Your task to perform on an android device: see tabs open on other devices in the chrome app Image 0: 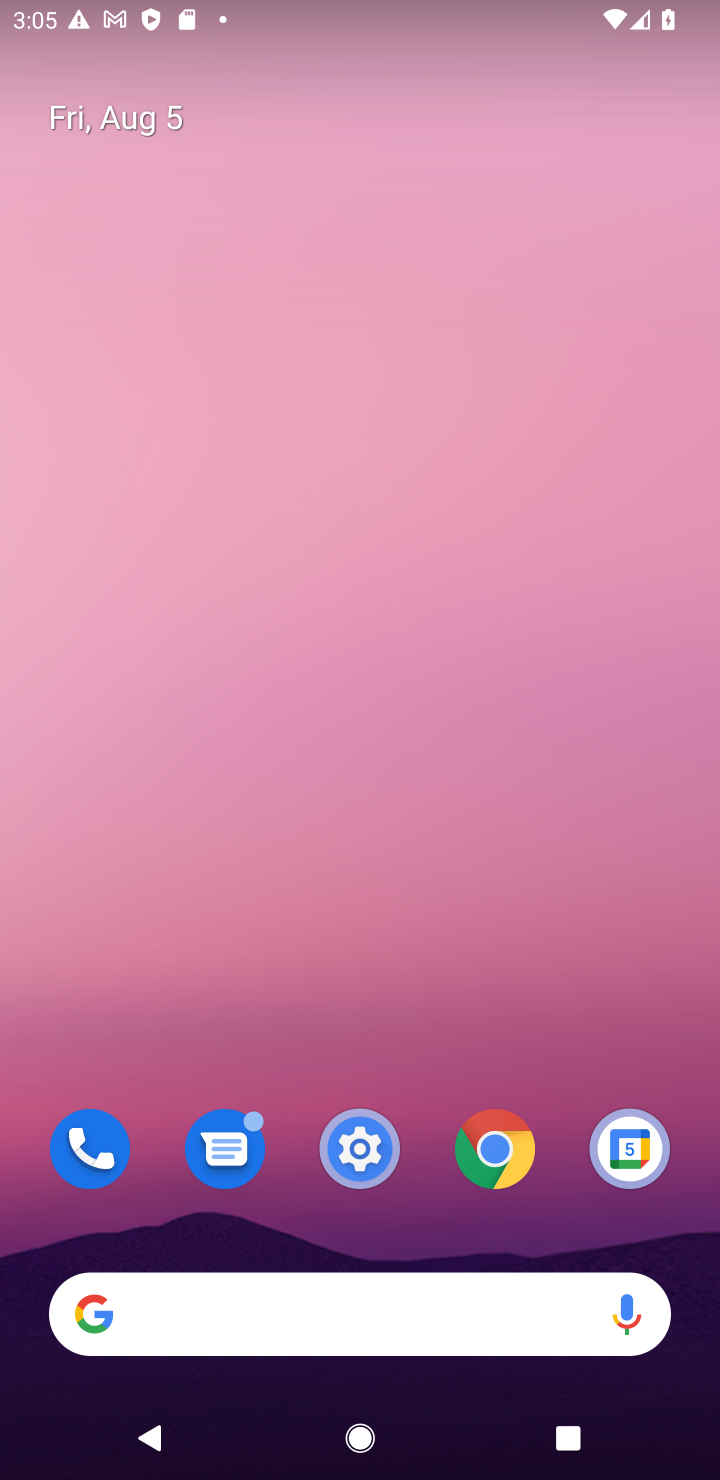
Step 0: click (466, 1154)
Your task to perform on an android device: see tabs open on other devices in the chrome app Image 1: 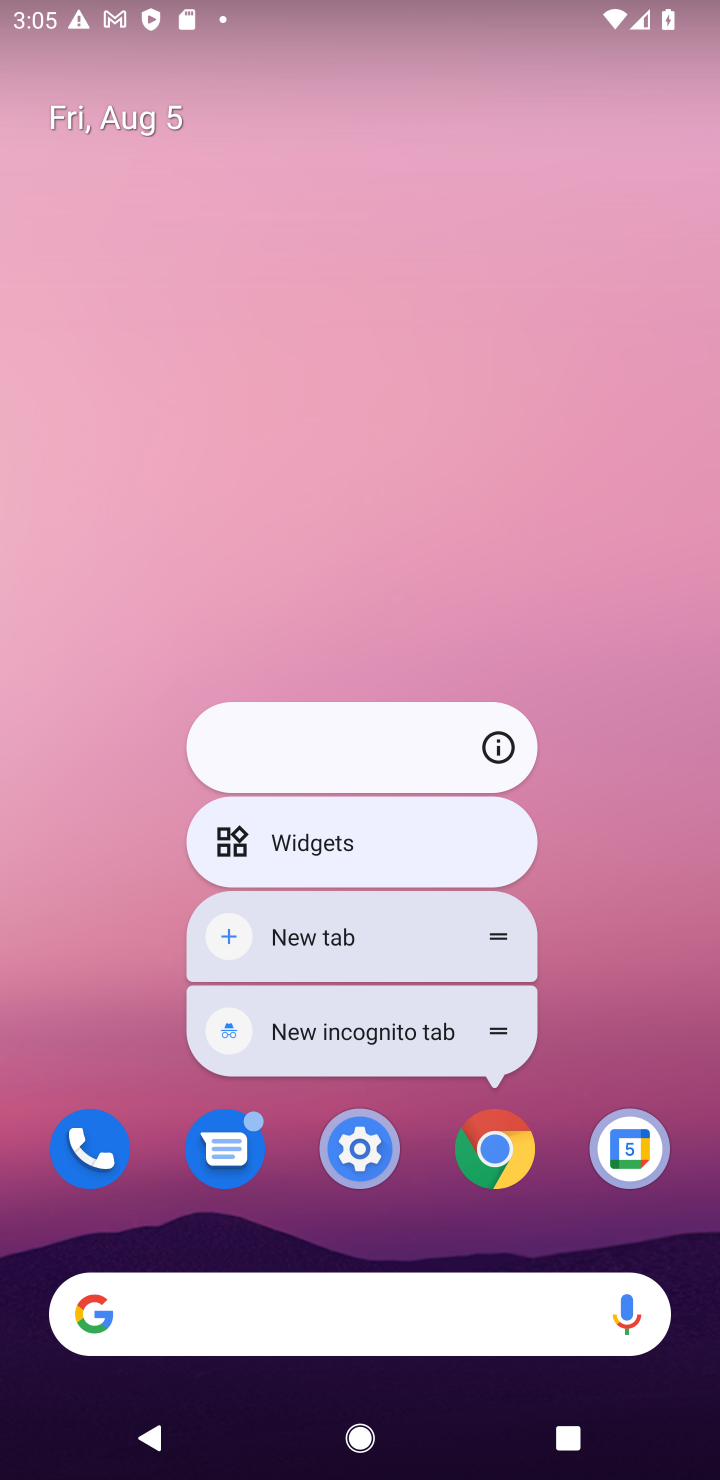
Step 1: click (487, 1157)
Your task to perform on an android device: see tabs open on other devices in the chrome app Image 2: 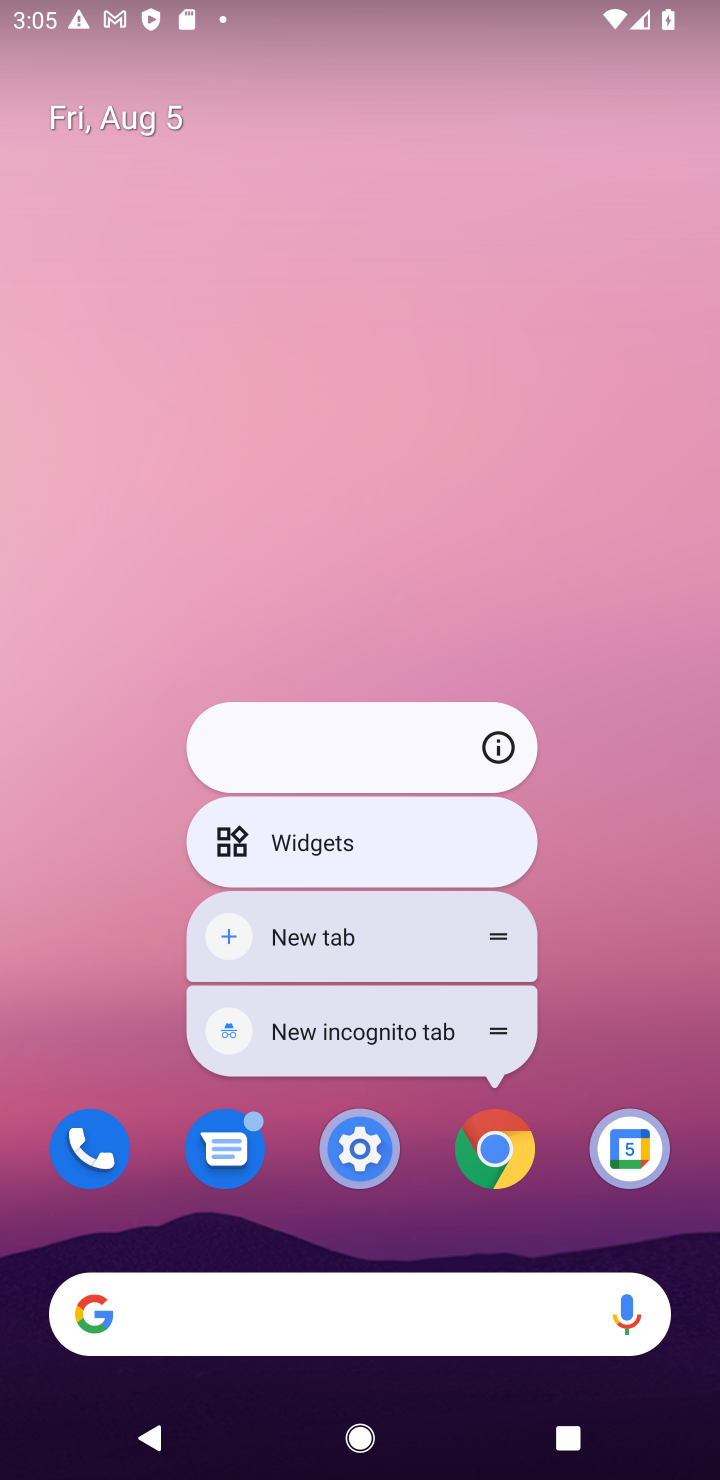
Step 2: click (488, 1171)
Your task to perform on an android device: see tabs open on other devices in the chrome app Image 3: 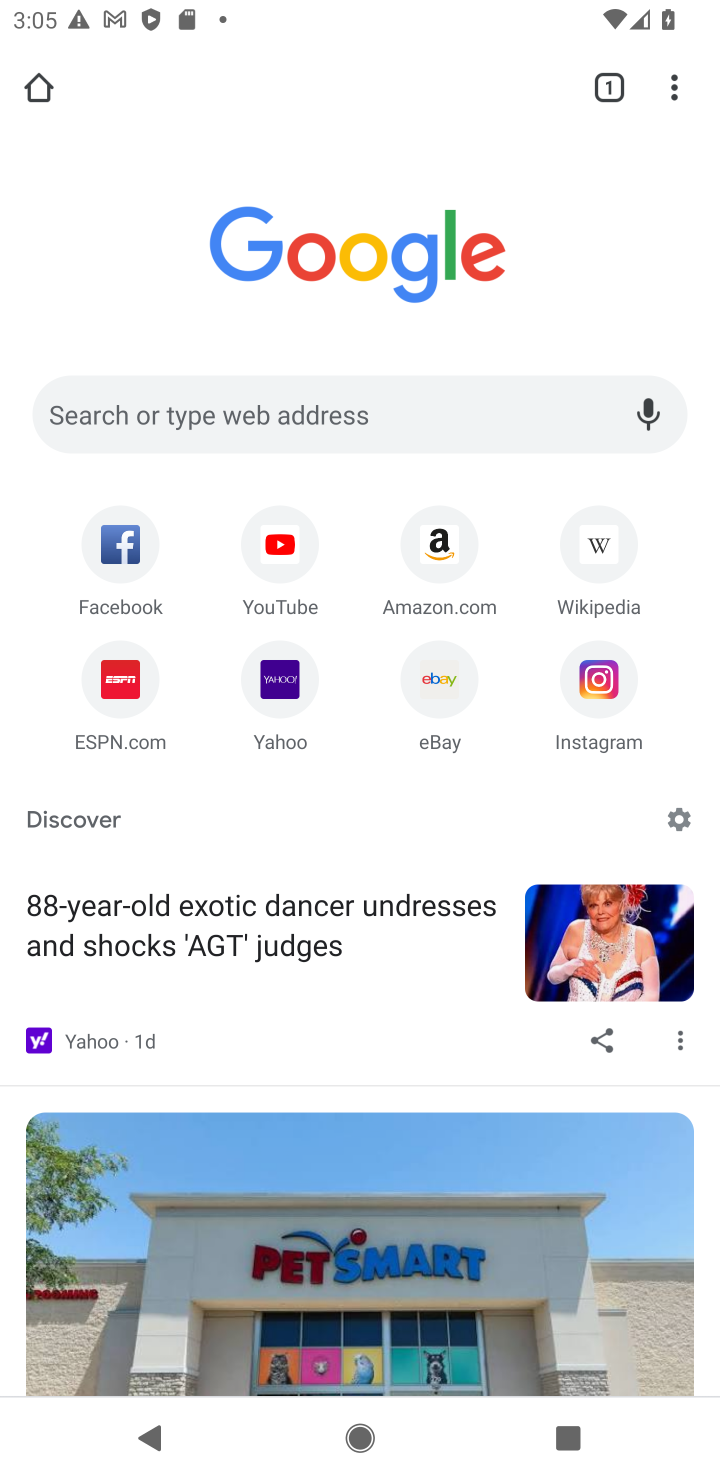
Step 3: task complete